Your task to perform on an android device: Open privacy settings Image 0: 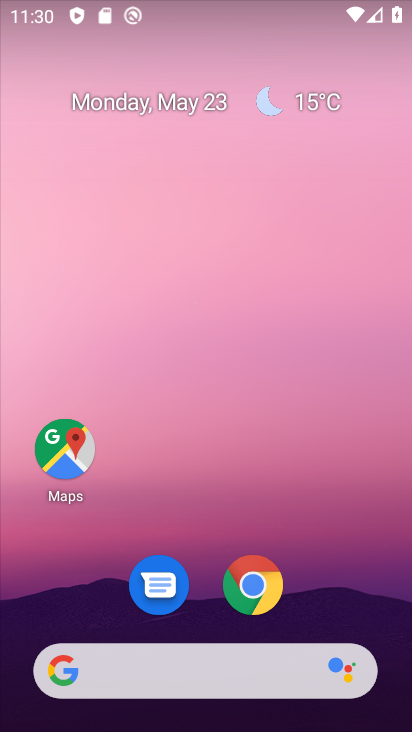
Step 0: drag from (248, 494) to (224, 0)
Your task to perform on an android device: Open privacy settings Image 1: 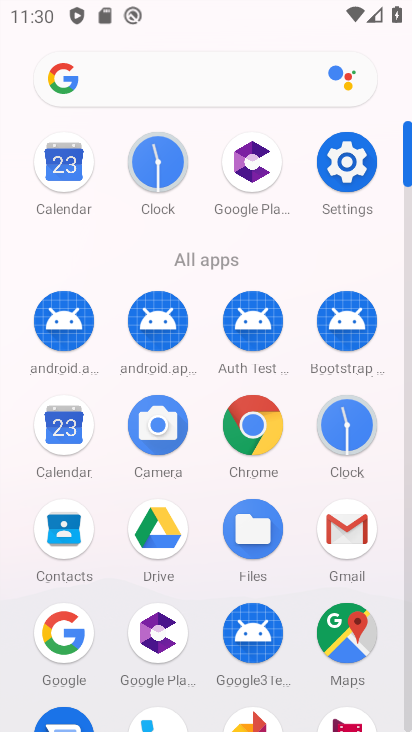
Step 1: click (343, 161)
Your task to perform on an android device: Open privacy settings Image 2: 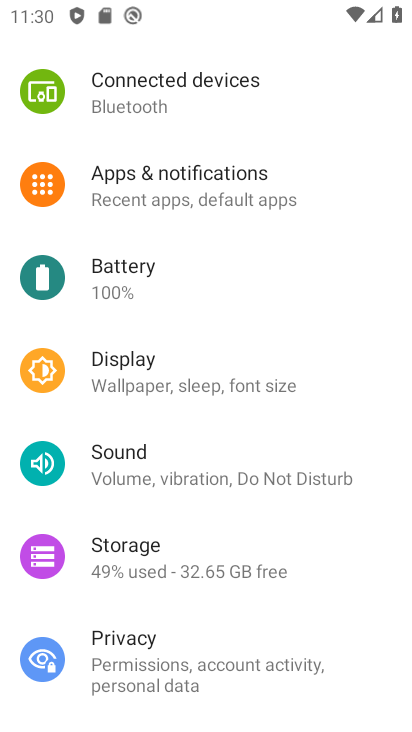
Step 2: drag from (198, 523) to (197, 469)
Your task to perform on an android device: Open privacy settings Image 3: 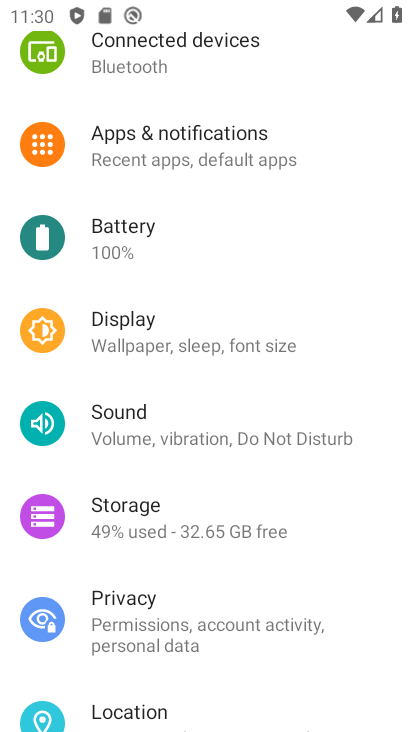
Step 3: click (204, 606)
Your task to perform on an android device: Open privacy settings Image 4: 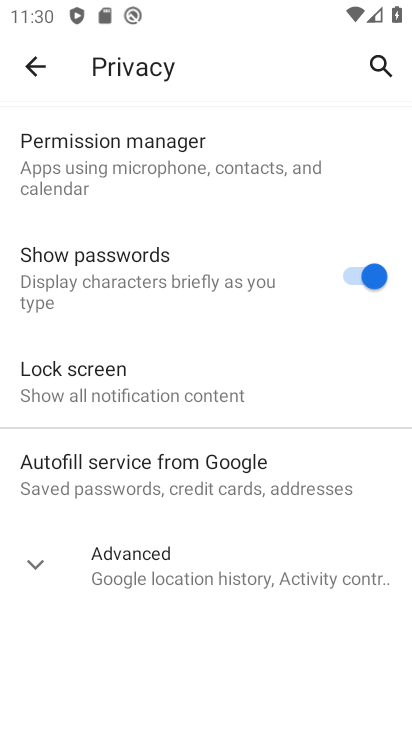
Step 4: task complete